Your task to perform on an android device: turn on wifi Image 0: 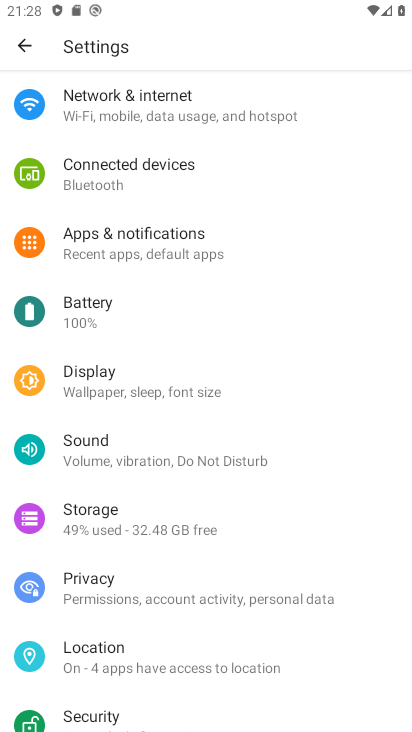
Step 0: press back button
Your task to perform on an android device: turn on wifi Image 1: 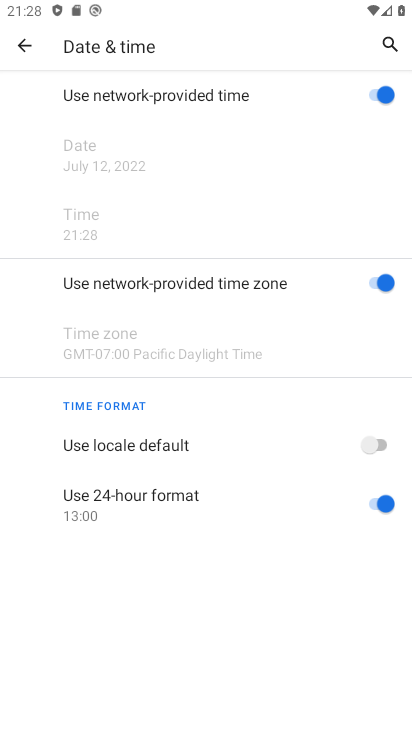
Step 1: task complete